Your task to perform on an android device: Go to privacy settings Image 0: 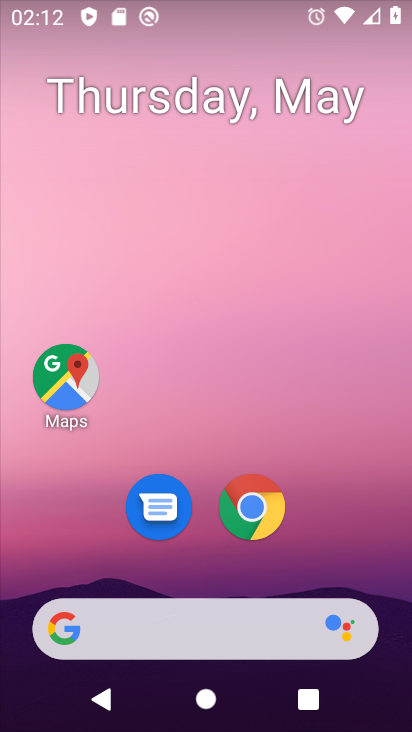
Step 0: drag from (374, 543) to (292, 78)
Your task to perform on an android device: Go to privacy settings Image 1: 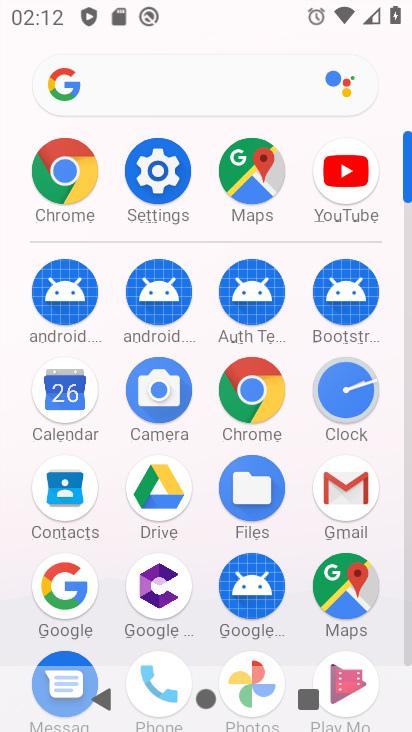
Step 1: click (140, 156)
Your task to perform on an android device: Go to privacy settings Image 2: 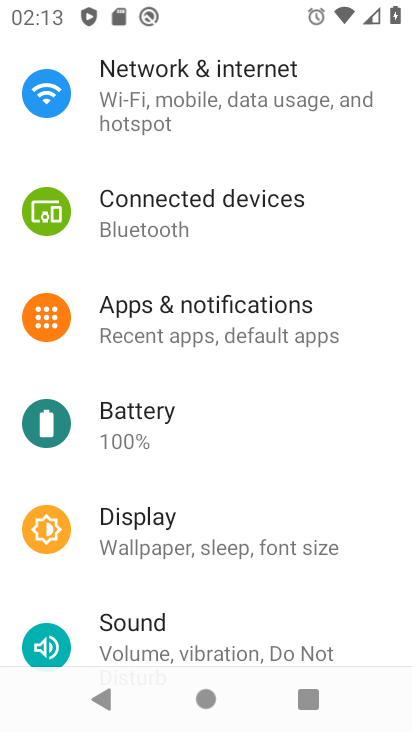
Step 2: drag from (238, 592) to (260, 121)
Your task to perform on an android device: Go to privacy settings Image 3: 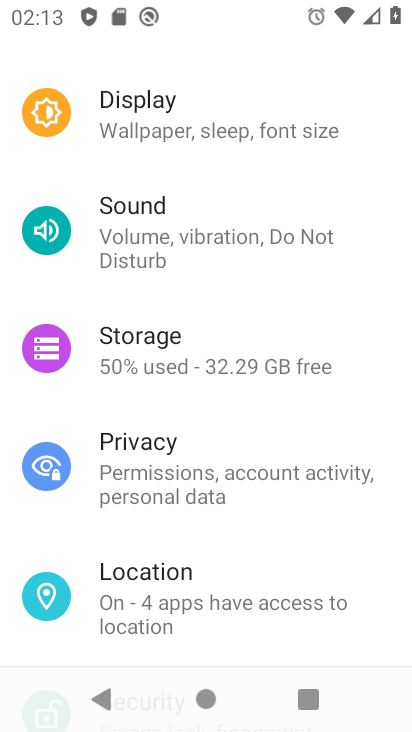
Step 3: click (208, 481)
Your task to perform on an android device: Go to privacy settings Image 4: 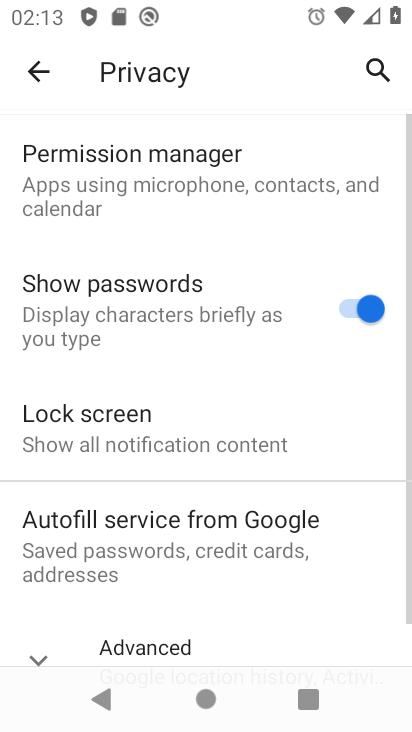
Step 4: task complete